Your task to perform on an android device: set default search engine in the chrome app Image 0: 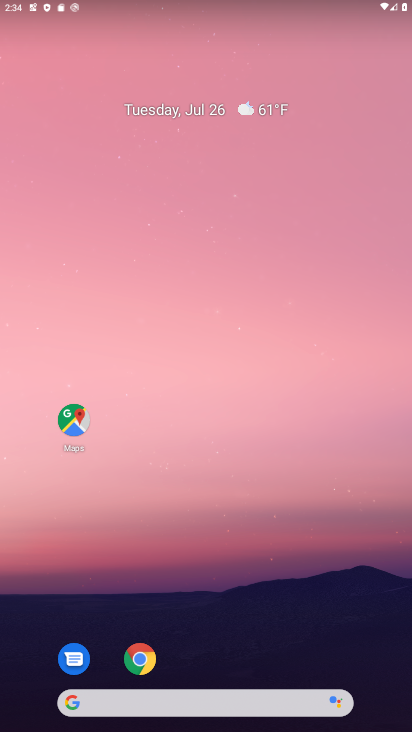
Step 0: click (141, 656)
Your task to perform on an android device: set default search engine in the chrome app Image 1: 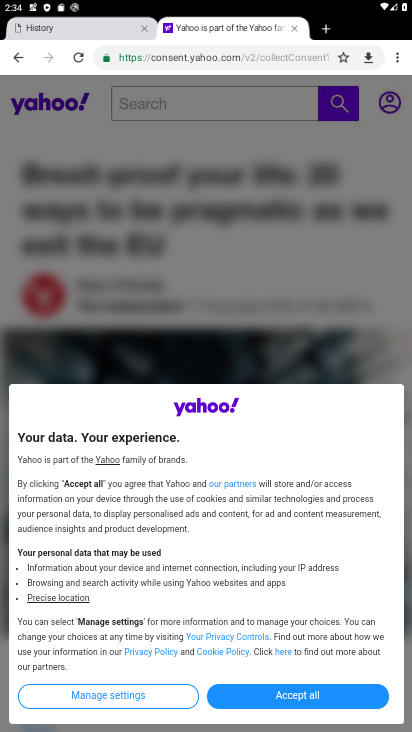
Step 1: click (397, 57)
Your task to perform on an android device: set default search engine in the chrome app Image 2: 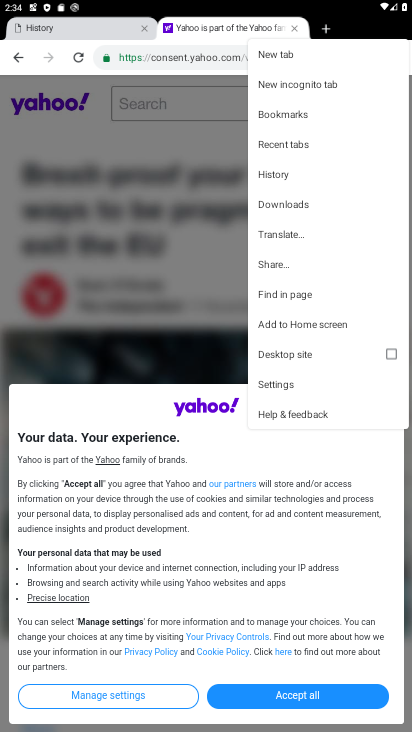
Step 2: click (284, 383)
Your task to perform on an android device: set default search engine in the chrome app Image 3: 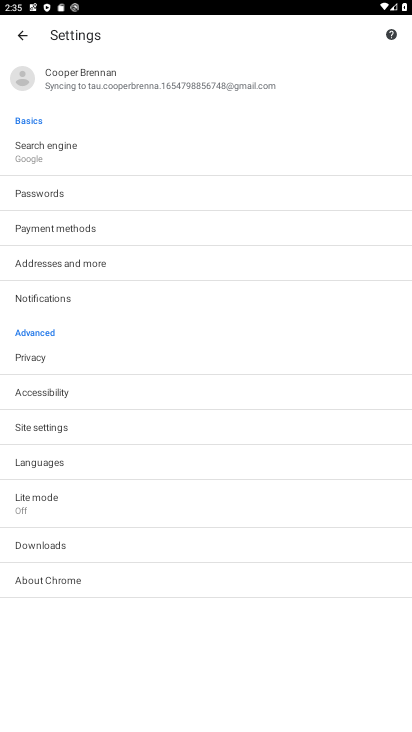
Step 3: click (49, 154)
Your task to perform on an android device: set default search engine in the chrome app Image 4: 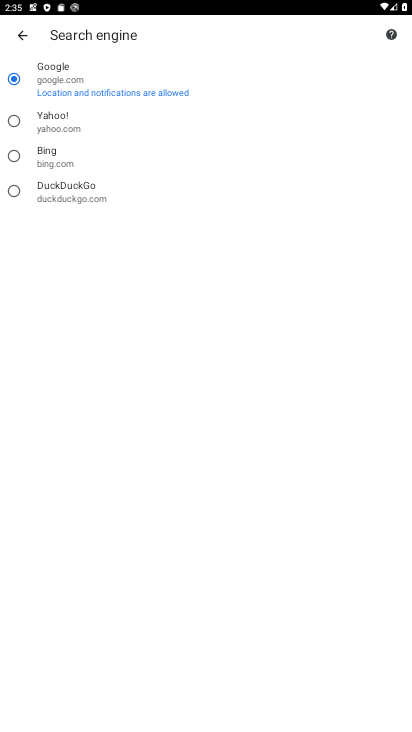
Step 4: click (16, 161)
Your task to perform on an android device: set default search engine in the chrome app Image 5: 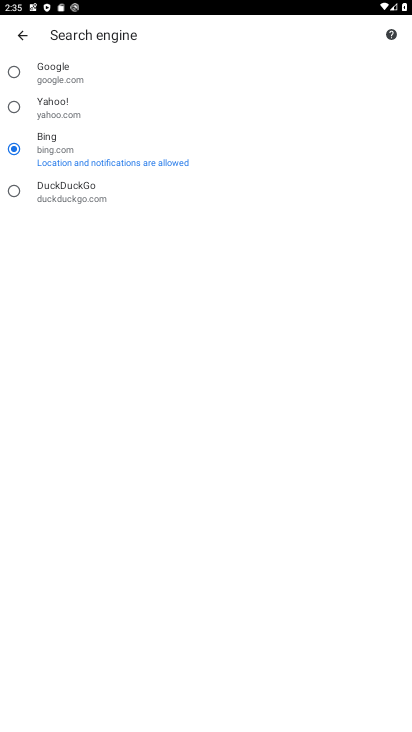
Step 5: task complete